Your task to perform on an android device: Open the web browser Image 0: 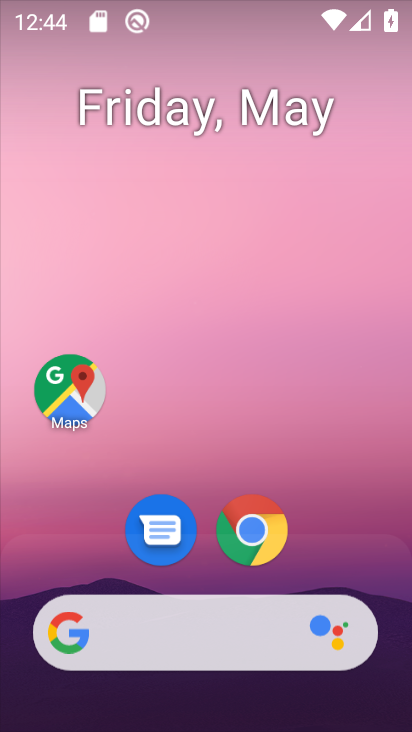
Step 0: click (241, 537)
Your task to perform on an android device: Open the web browser Image 1: 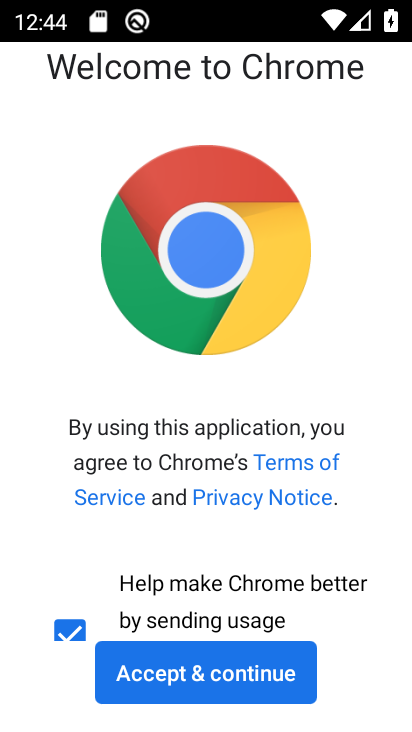
Step 1: task complete